Your task to perform on an android device: Open Yahoo.com Image 0: 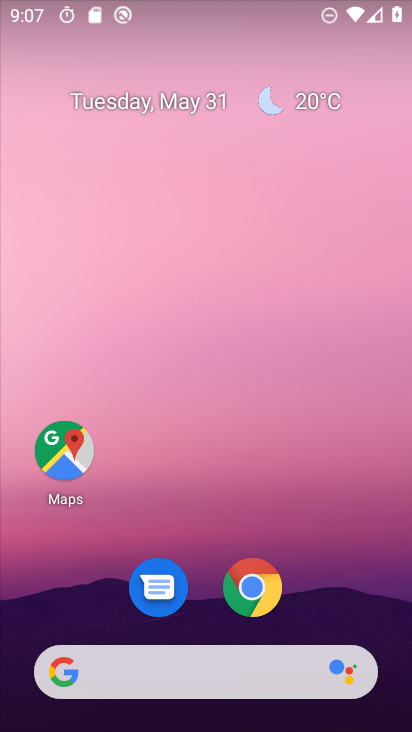
Step 0: click (249, 587)
Your task to perform on an android device: Open Yahoo.com Image 1: 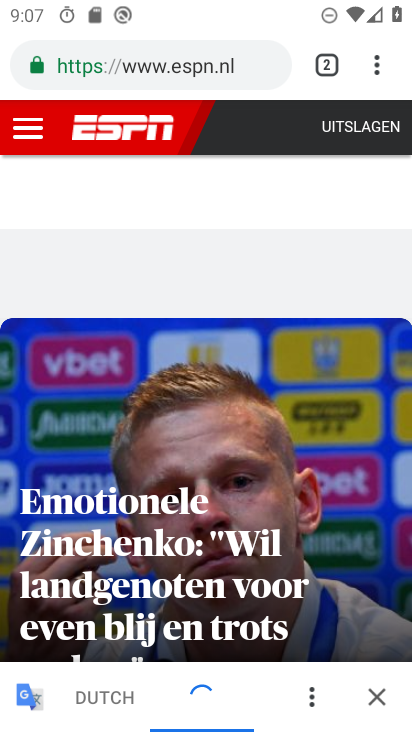
Step 1: click (324, 67)
Your task to perform on an android device: Open Yahoo.com Image 2: 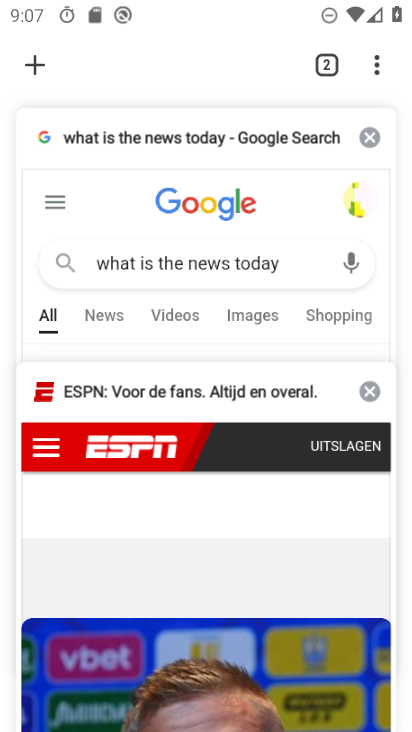
Step 2: click (37, 72)
Your task to perform on an android device: Open Yahoo.com Image 3: 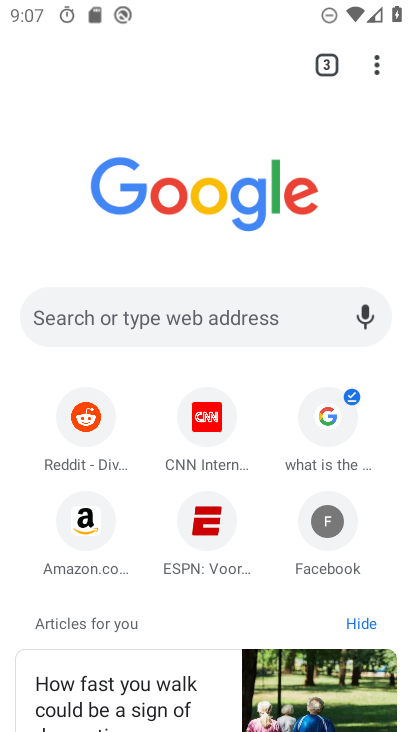
Step 3: click (158, 322)
Your task to perform on an android device: Open Yahoo.com Image 4: 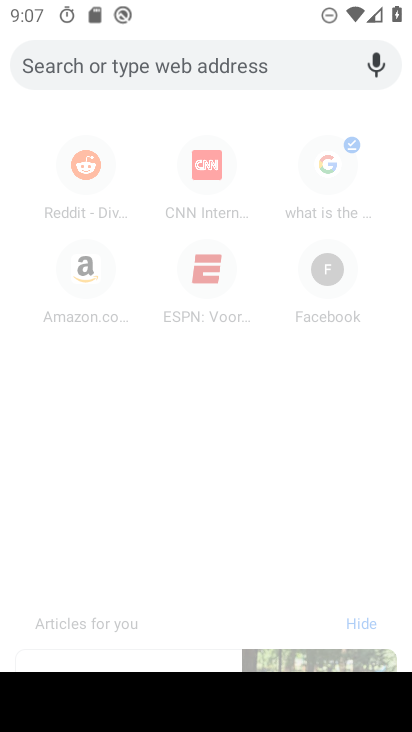
Step 4: type "yahoo"
Your task to perform on an android device: Open Yahoo.com Image 5: 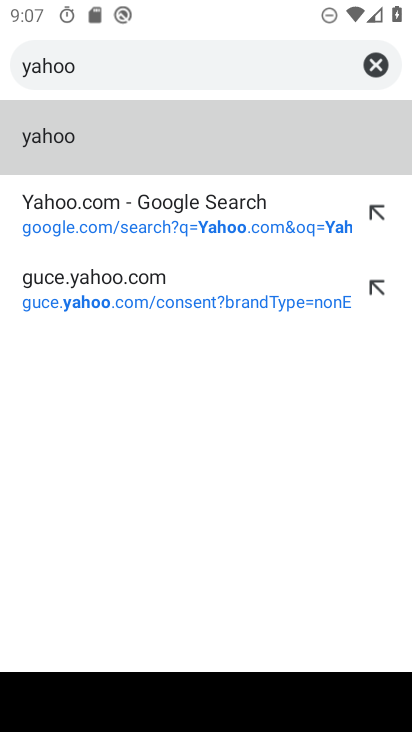
Step 5: click (169, 161)
Your task to perform on an android device: Open Yahoo.com Image 6: 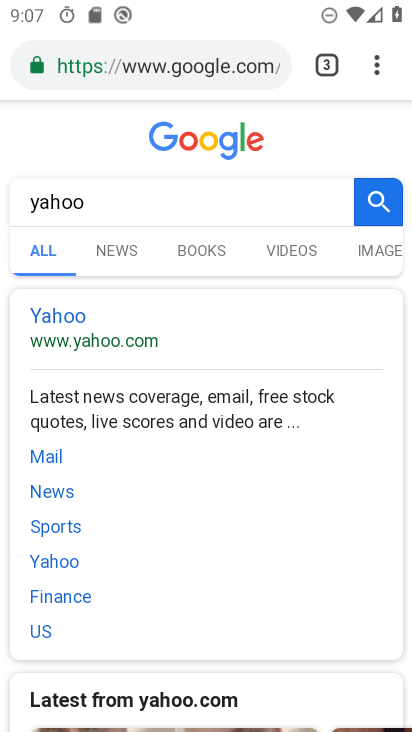
Step 6: task complete